Your task to perform on an android device: turn off notifications settings in the gmail app Image 0: 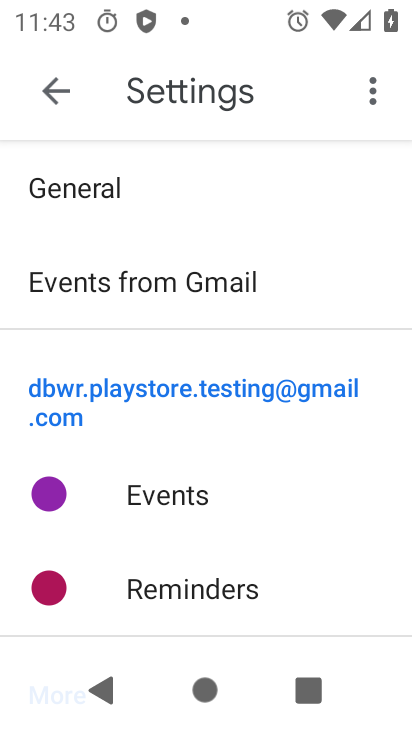
Step 0: press home button
Your task to perform on an android device: turn off notifications settings in the gmail app Image 1: 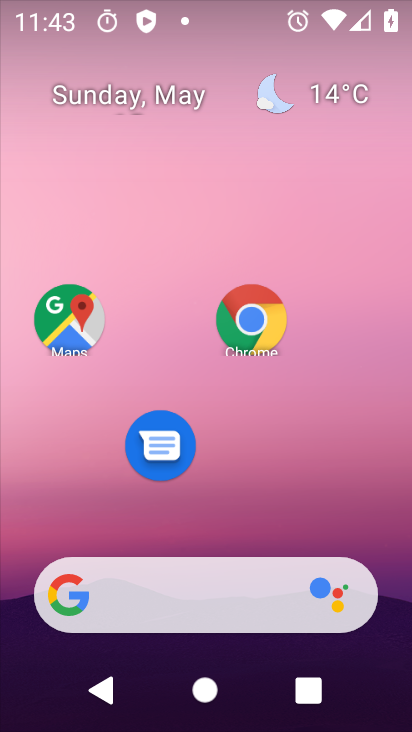
Step 1: drag from (125, 600) to (266, 197)
Your task to perform on an android device: turn off notifications settings in the gmail app Image 2: 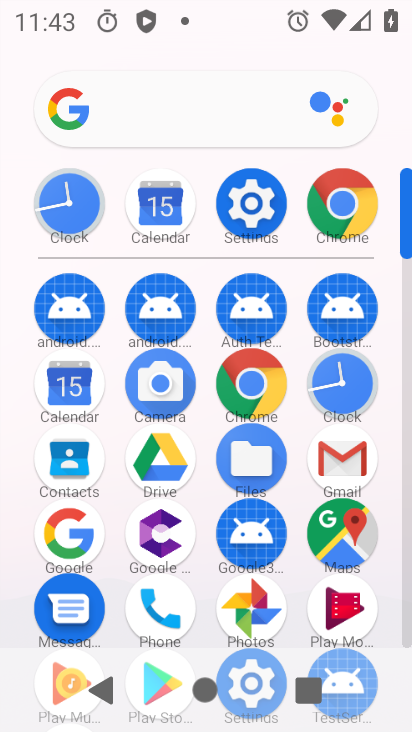
Step 2: click (336, 461)
Your task to perform on an android device: turn off notifications settings in the gmail app Image 3: 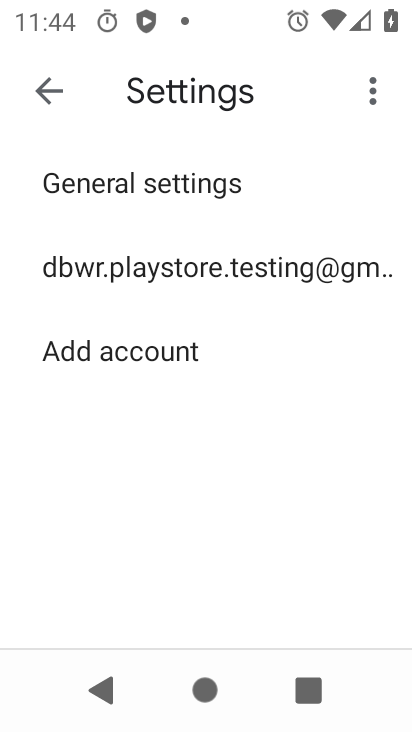
Step 3: click (228, 261)
Your task to perform on an android device: turn off notifications settings in the gmail app Image 4: 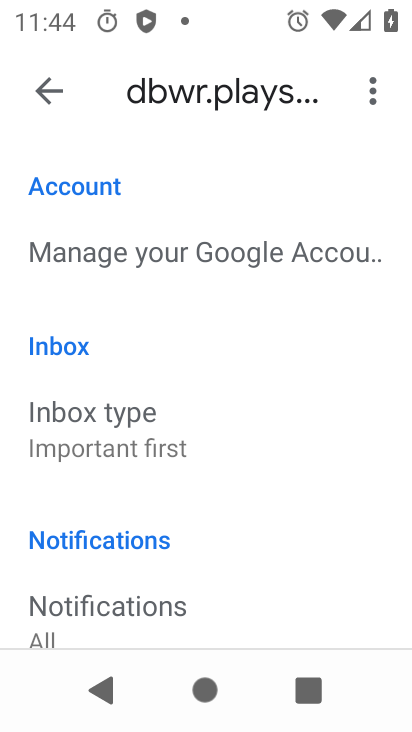
Step 4: drag from (190, 526) to (274, 286)
Your task to perform on an android device: turn off notifications settings in the gmail app Image 5: 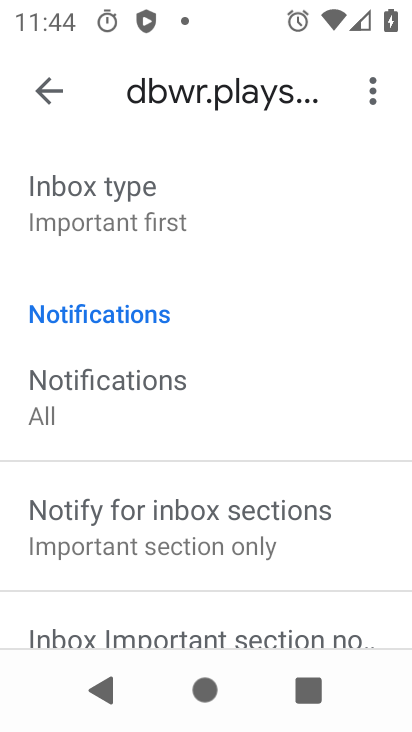
Step 5: click (129, 371)
Your task to perform on an android device: turn off notifications settings in the gmail app Image 6: 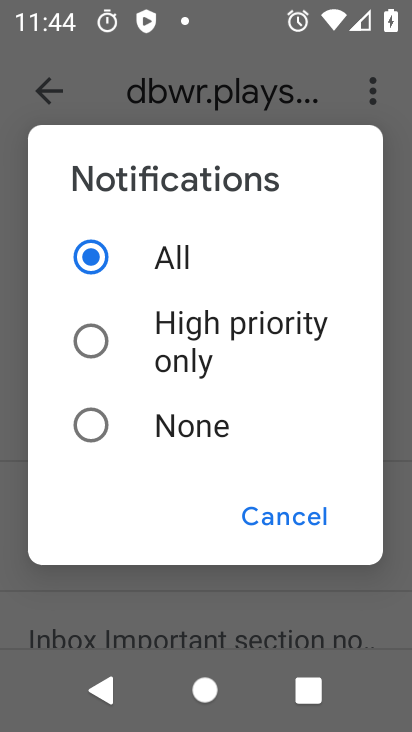
Step 6: click (80, 423)
Your task to perform on an android device: turn off notifications settings in the gmail app Image 7: 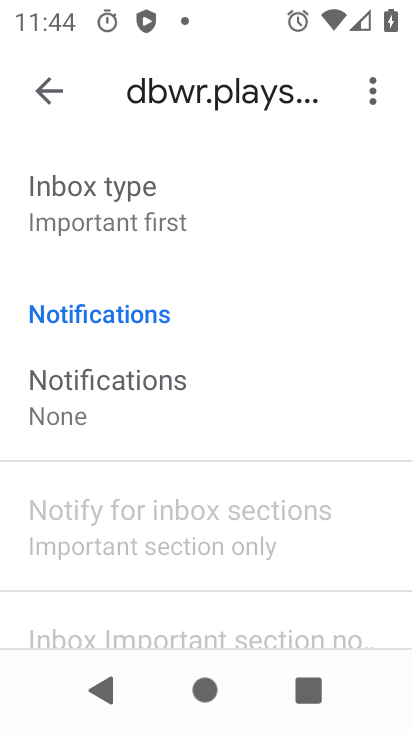
Step 7: task complete